Your task to perform on an android device: What's the weather going to be this weekend? Image 0: 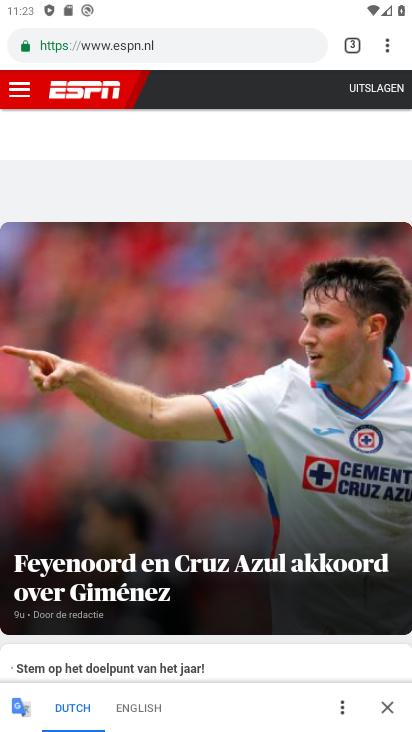
Step 0: press back button
Your task to perform on an android device: What's the weather going to be this weekend? Image 1: 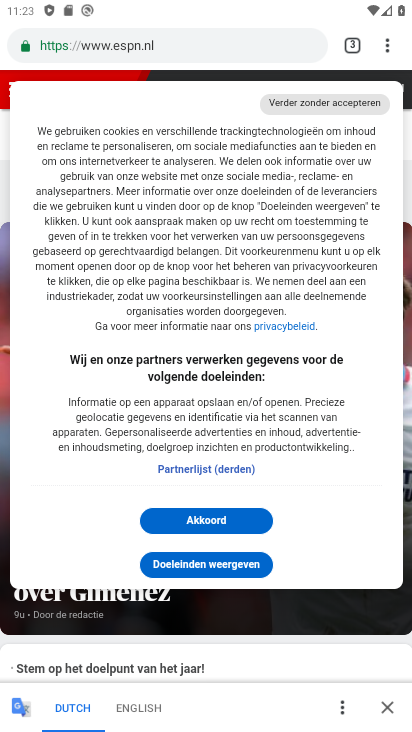
Step 1: press back button
Your task to perform on an android device: What's the weather going to be this weekend? Image 2: 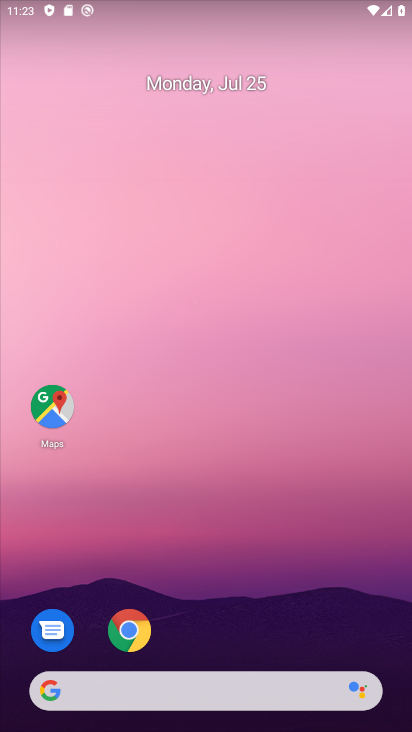
Step 2: drag from (282, 629) to (298, 130)
Your task to perform on an android device: What's the weather going to be this weekend? Image 3: 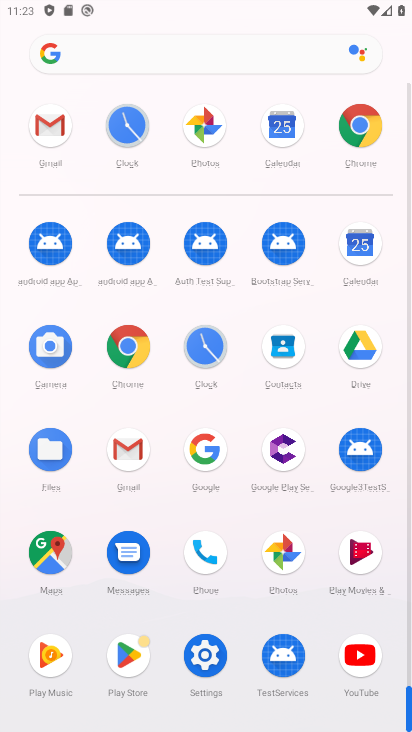
Step 3: click (356, 119)
Your task to perform on an android device: What's the weather going to be this weekend? Image 4: 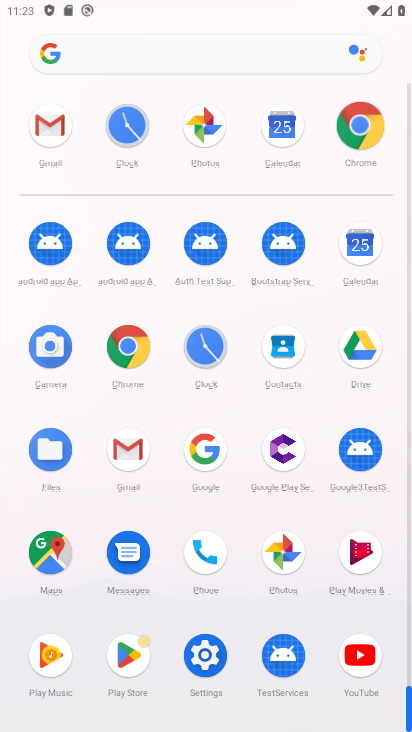
Step 4: click (357, 116)
Your task to perform on an android device: What's the weather going to be this weekend? Image 5: 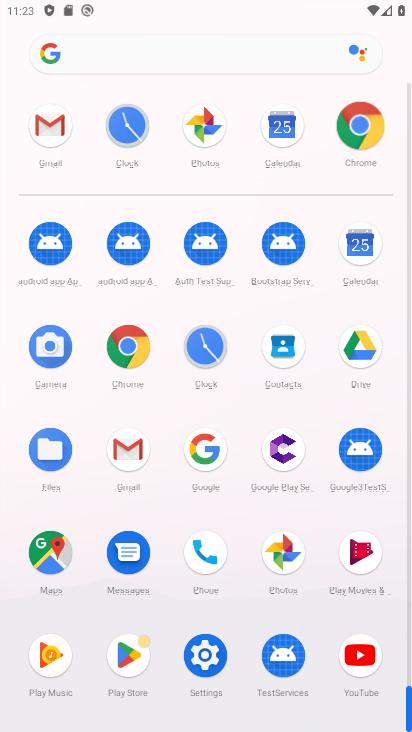
Step 5: click (357, 116)
Your task to perform on an android device: What's the weather going to be this weekend? Image 6: 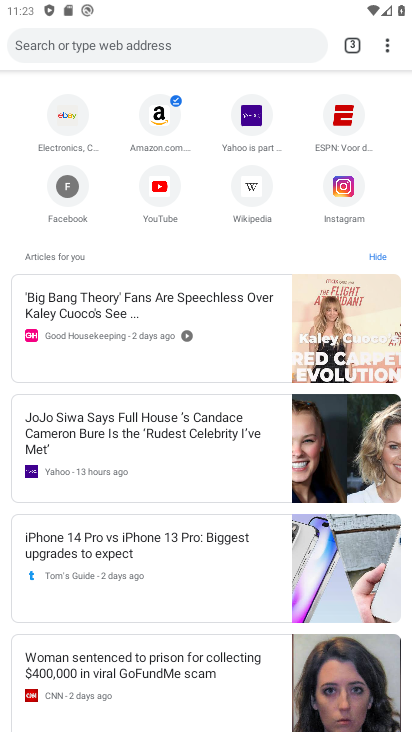
Step 6: click (375, 39)
Your task to perform on an android device: What's the weather going to be this weekend? Image 7: 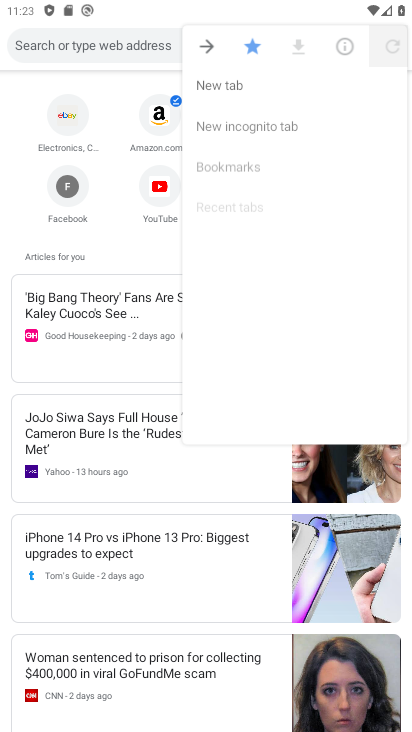
Step 7: click (376, 39)
Your task to perform on an android device: What's the weather going to be this weekend? Image 8: 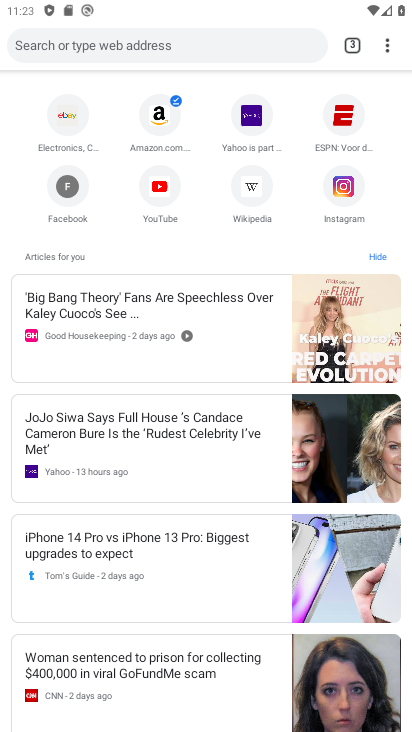
Step 8: drag from (383, 47) to (201, 84)
Your task to perform on an android device: What's the weather going to be this weekend? Image 9: 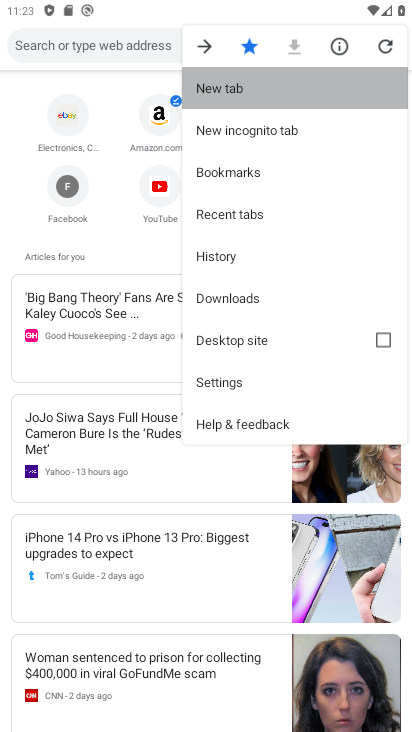
Step 9: click (205, 81)
Your task to perform on an android device: What's the weather going to be this weekend? Image 10: 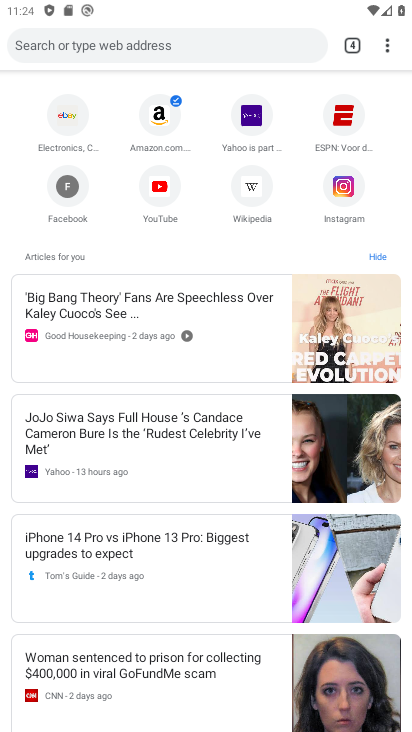
Step 10: type "what's weather going to be this weekend?"
Your task to perform on an android device: What's the weather going to be this weekend? Image 11: 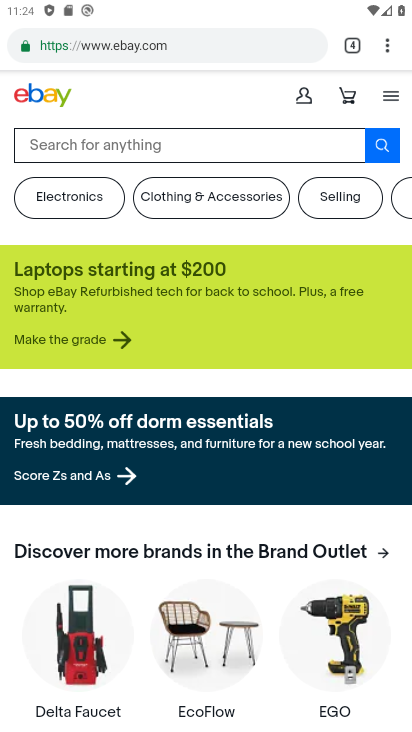
Step 11: click (185, 34)
Your task to perform on an android device: What's the weather going to be this weekend? Image 12: 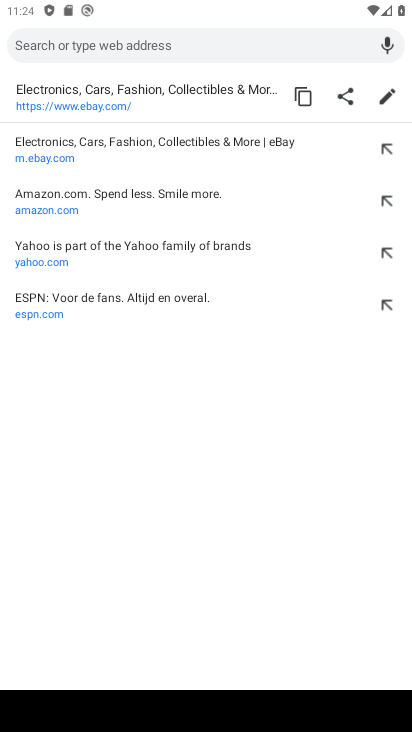
Step 12: type "weather"
Your task to perform on an android device: What's the weather going to be this weekend? Image 13: 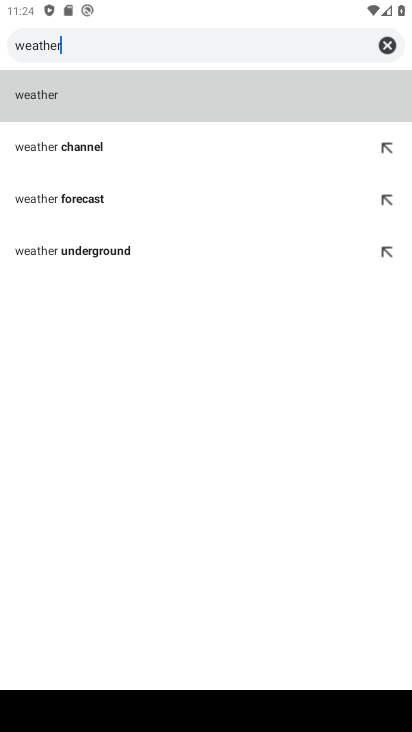
Step 13: click (40, 95)
Your task to perform on an android device: What's the weather going to be this weekend? Image 14: 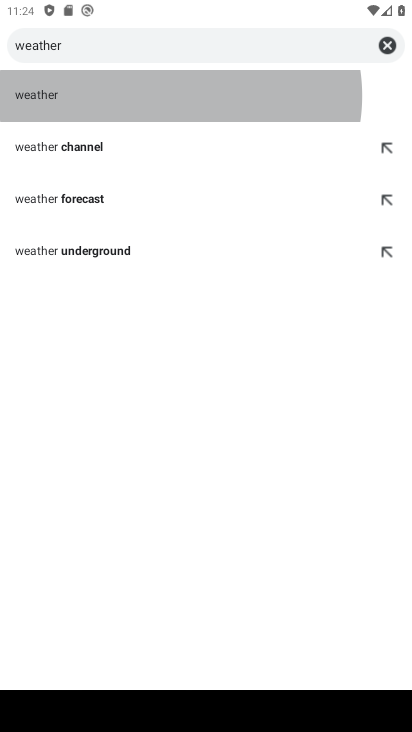
Step 14: click (41, 96)
Your task to perform on an android device: What's the weather going to be this weekend? Image 15: 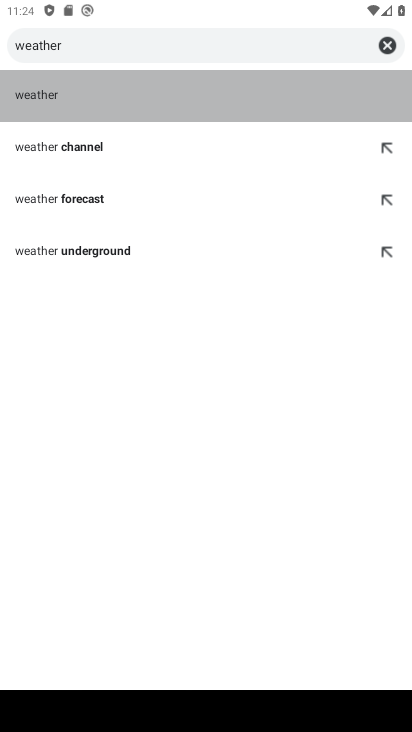
Step 15: click (42, 96)
Your task to perform on an android device: What's the weather going to be this weekend? Image 16: 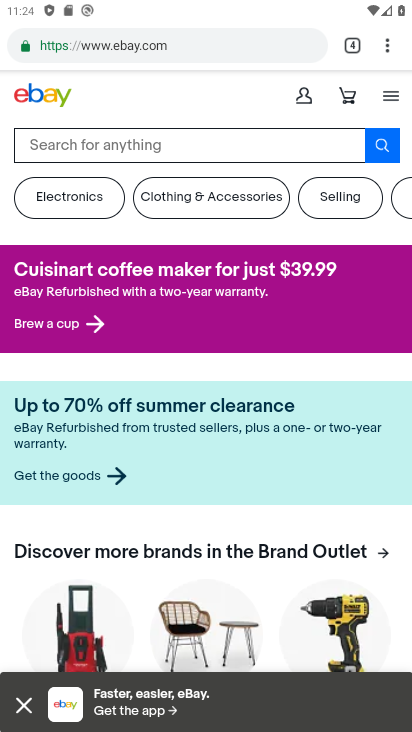
Step 16: task complete